Your task to perform on an android device: Go to CNN.com Image 0: 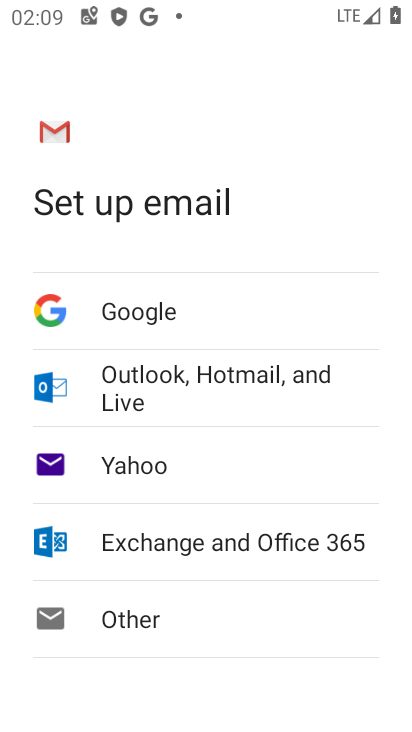
Step 0: press home button
Your task to perform on an android device: Go to CNN.com Image 1: 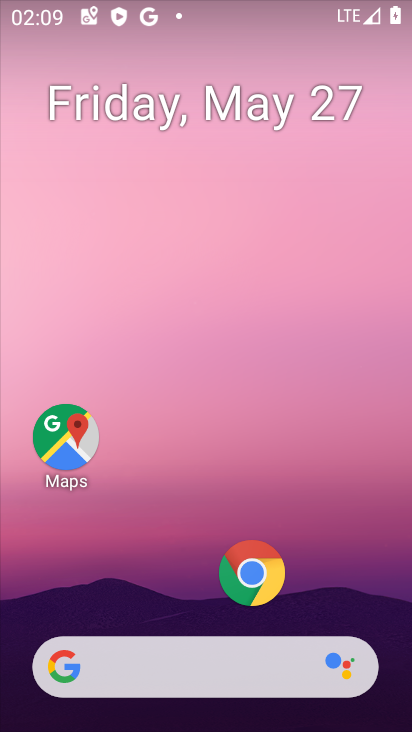
Step 1: drag from (186, 640) to (196, 233)
Your task to perform on an android device: Go to CNN.com Image 2: 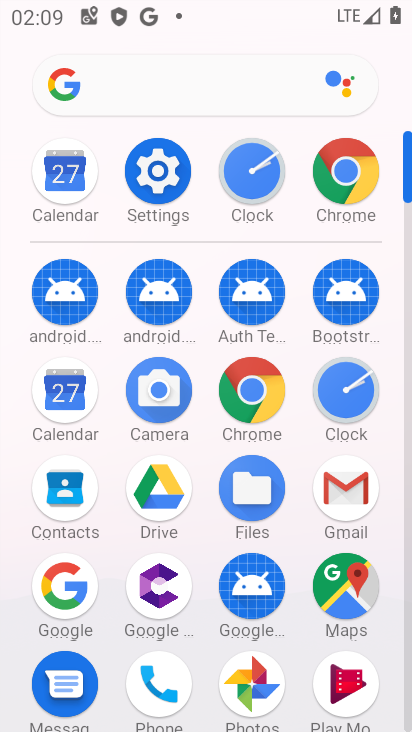
Step 2: click (252, 396)
Your task to perform on an android device: Go to CNN.com Image 3: 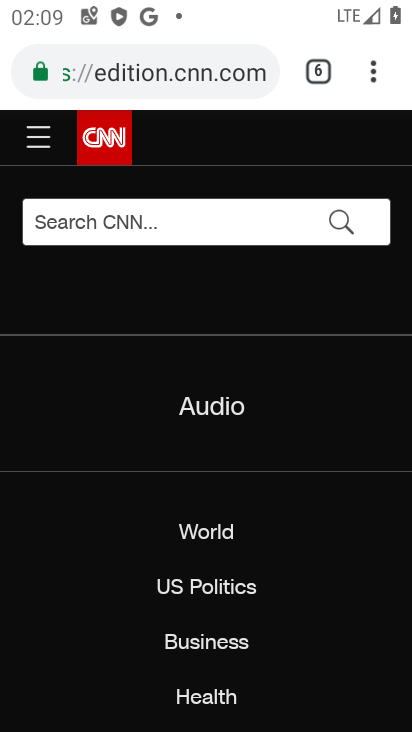
Step 3: task complete